Your task to perform on an android device: turn off airplane mode Image 0: 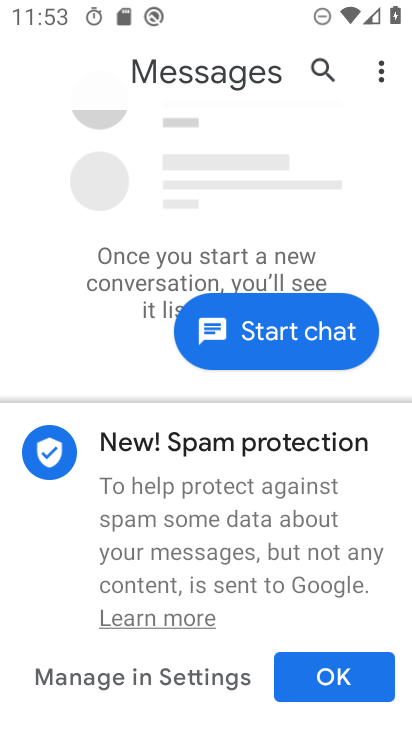
Step 0: press back button
Your task to perform on an android device: turn off airplane mode Image 1: 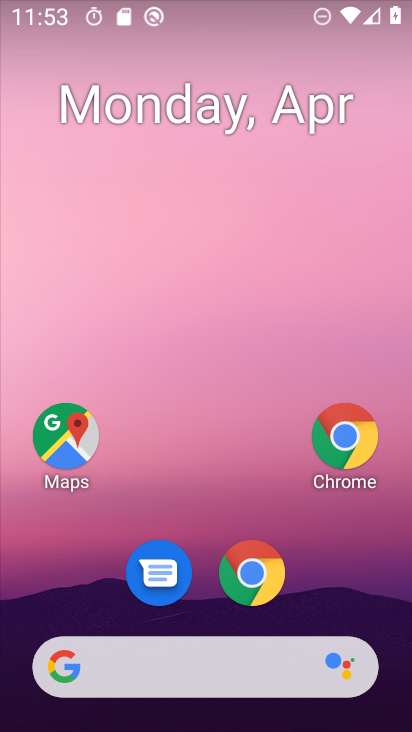
Step 1: drag from (346, 430) to (327, 9)
Your task to perform on an android device: turn off airplane mode Image 2: 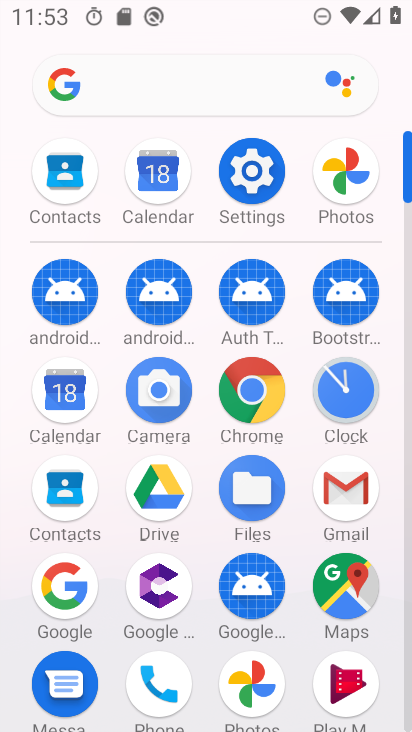
Step 2: click (258, 158)
Your task to perform on an android device: turn off airplane mode Image 3: 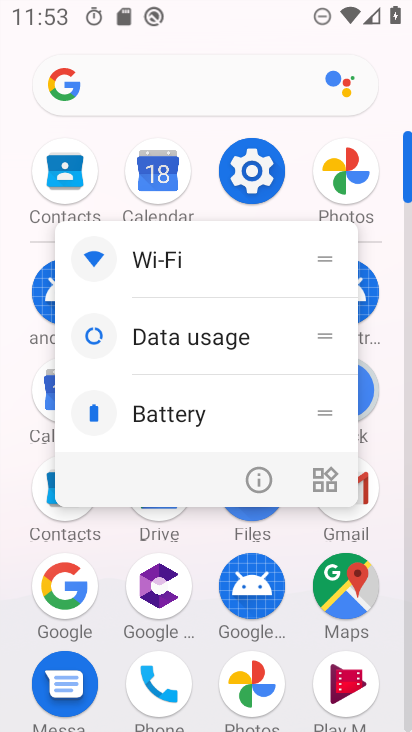
Step 3: click (222, 170)
Your task to perform on an android device: turn off airplane mode Image 4: 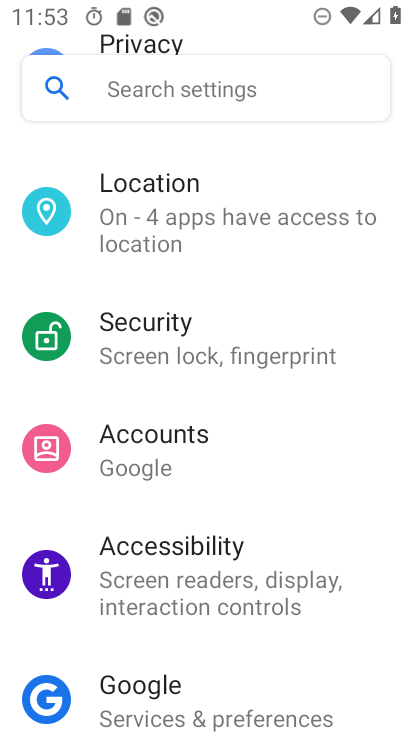
Step 4: drag from (226, 208) to (299, 552)
Your task to perform on an android device: turn off airplane mode Image 5: 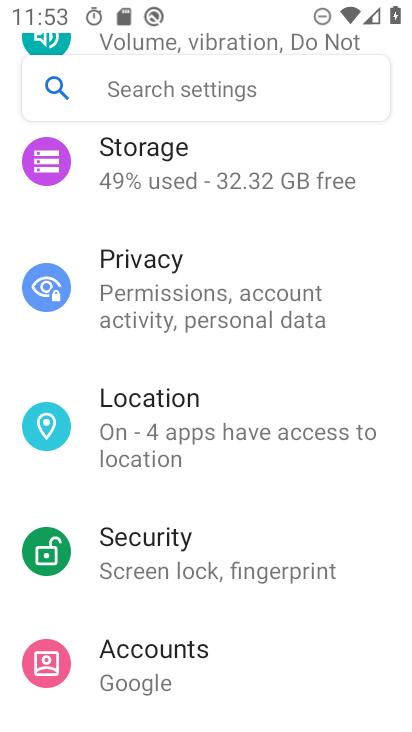
Step 5: drag from (234, 161) to (212, 567)
Your task to perform on an android device: turn off airplane mode Image 6: 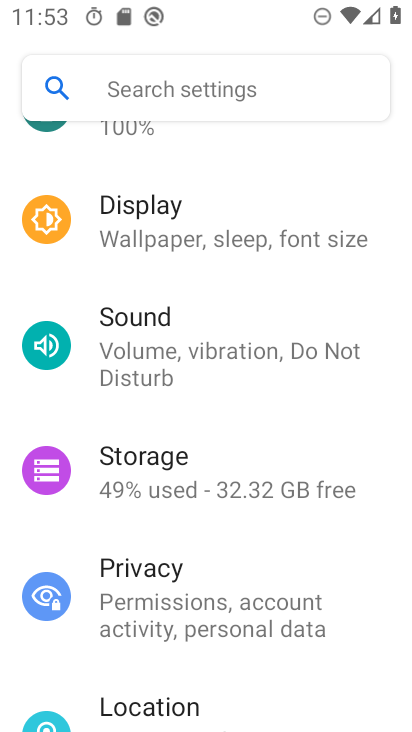
Step 6: drag from (247, 178) to (238, 543)
Your task to perform on an android device: turn off airplane mode Image 7: 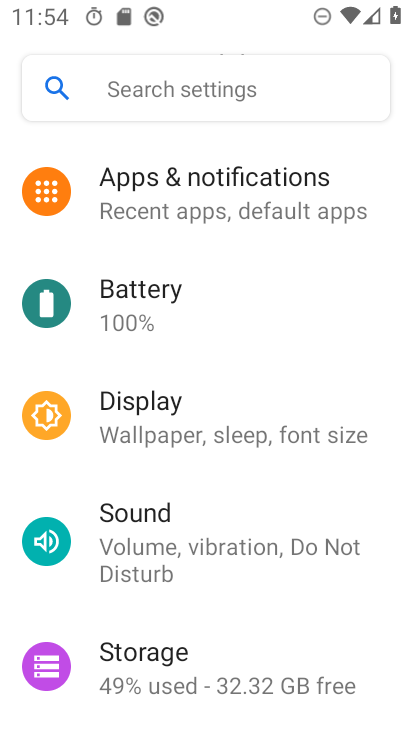
Step 7: drag from (224, 224) to (198, 513)
Your task to perform on an android device: turn off airplane mode Image 8: 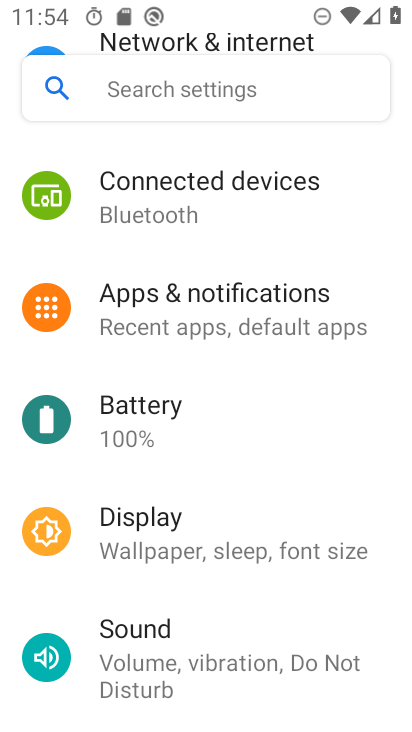
Step 8: drag from (262, 254) to (269, 469)
Your task to perform on an android device: turn off airplane mode Image 9: 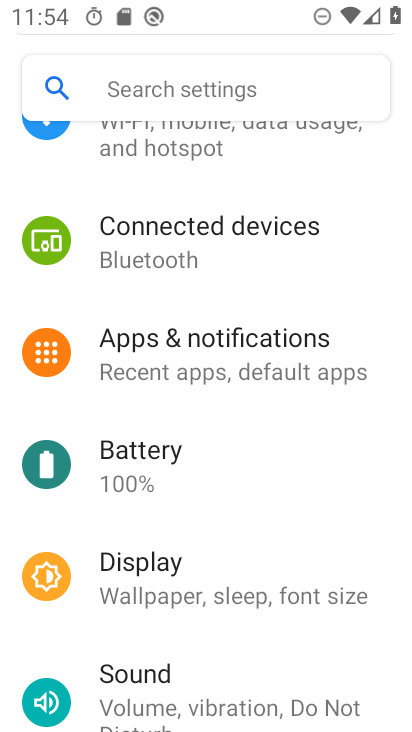
Step 9: drag from (204, 142) to (200, 464)
Your task to perform on an android device: turn off airplane mode Image 10: 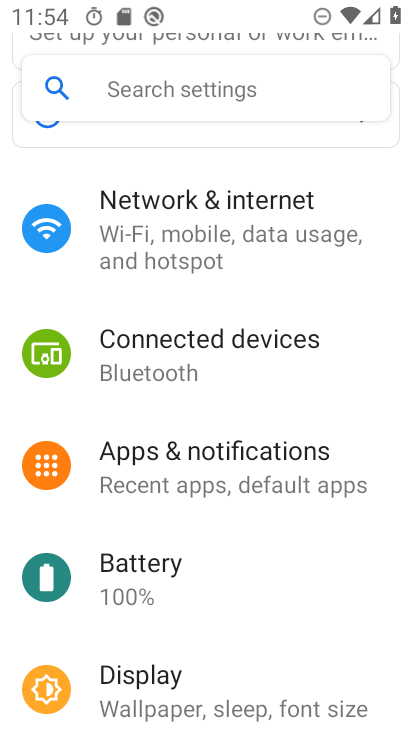
Step 10: drag from (183, 124) to (221, 411)
Your task to perform on an android device: turn off airplane mode Image 11: 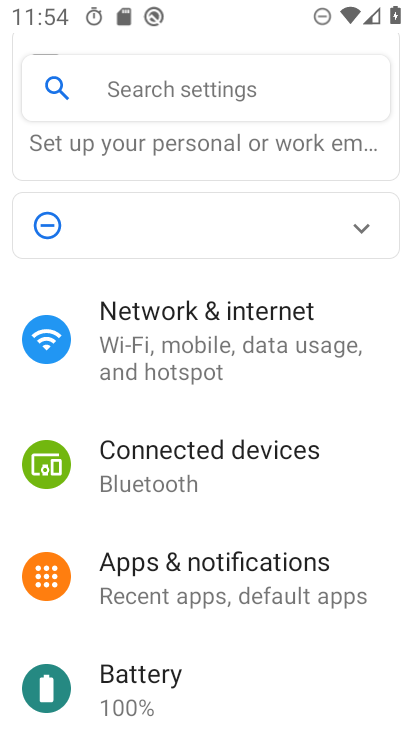
Step 11: click (203, 306)
Your task to perform on an android device: turn off airplane mode Image 12: 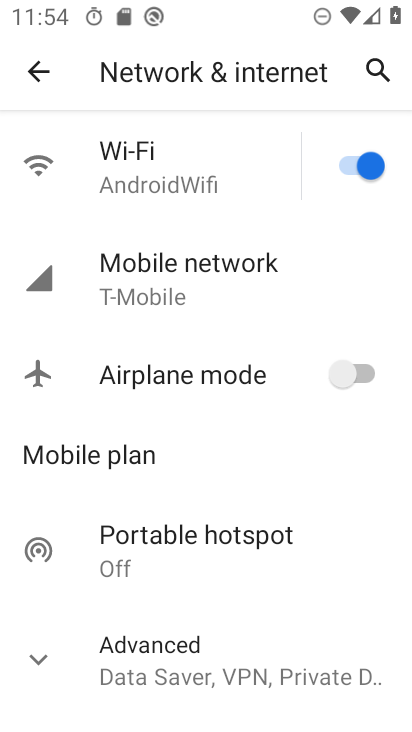
Step 12: task complete